Your task to perform on an android device: Open internet settings Image 0: 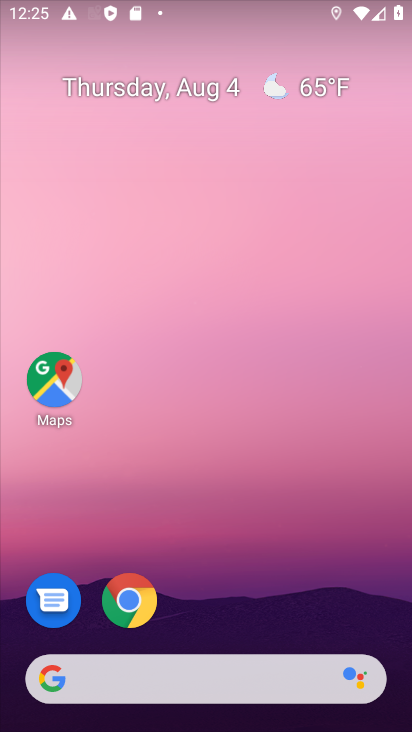
Step 0: drag from (219, 617) to (229, 82)
Your task to perform on an android device: Open internet settings Image 1: 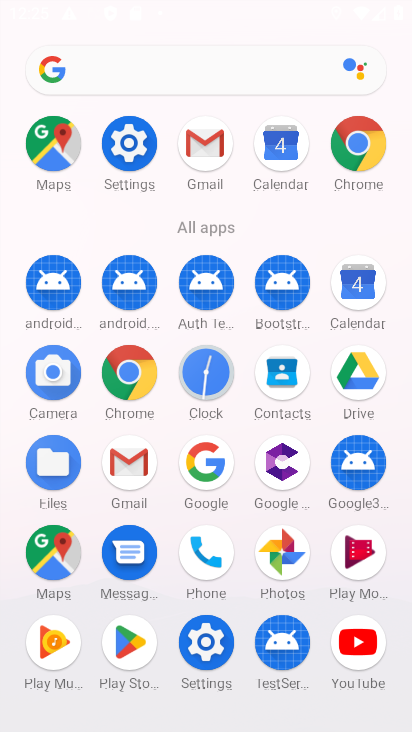
Step 1: click (193, 652)
Your task to perform on an android device: Open internet settings Image 2: 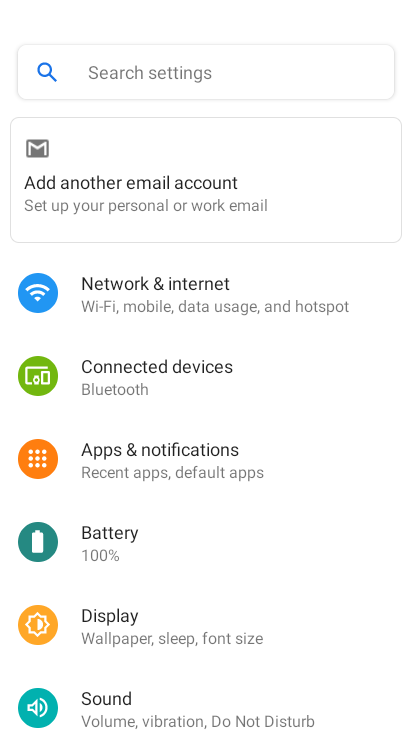
Step 2: click (136, 318)
Your task to perform on an android device: Open internet settings Image 3: 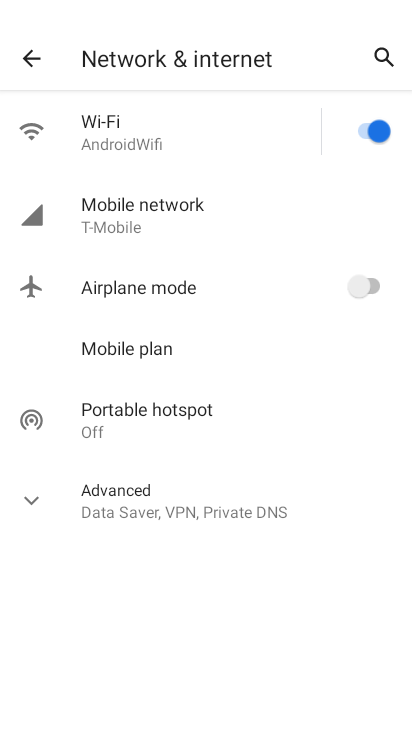
Step 3: press home button
Your task to perform on an android device: Open internet settings Image 4: 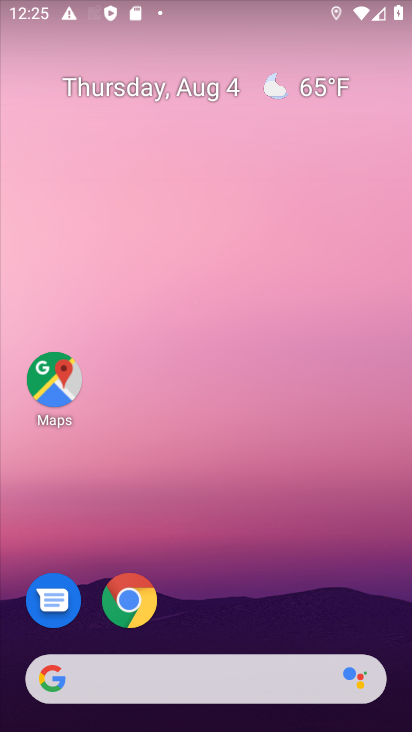
Step 4: drag from (226, 623) to (132, 108)
Your task to perform on an android device: Open internet settings Image 5: 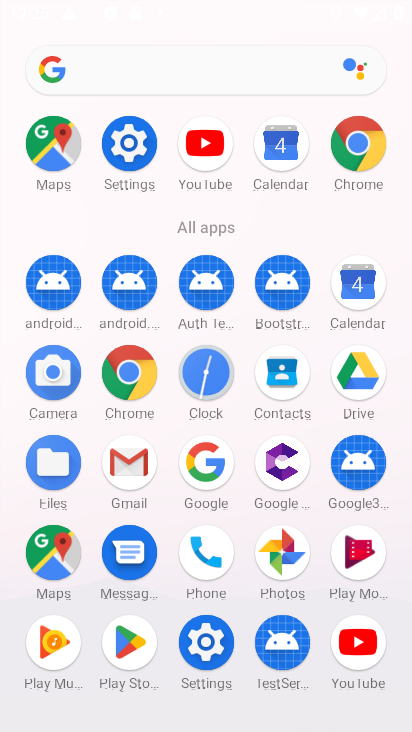
Step 5: click (140, 137)
Your task to perform on an android device: Open internet settings Image 6: 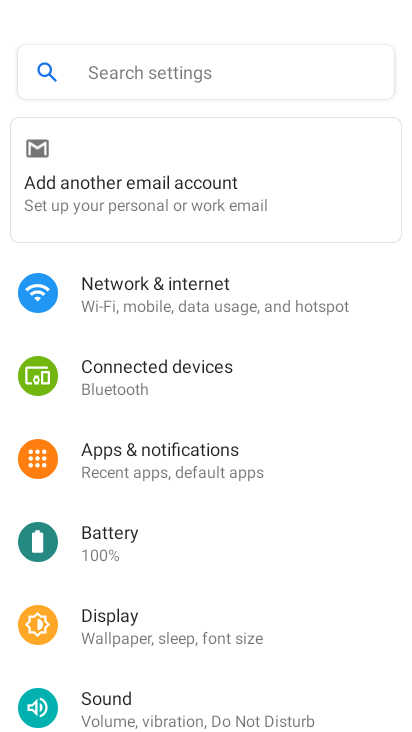
Step 6: click (160, 286)
Your task to perform on an android device: Open internet settings Image 7: 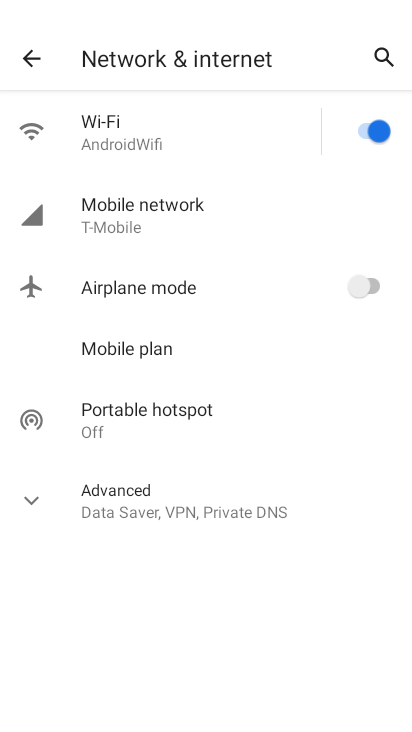
Step 7: click (131, 219)
Your task to perform on an android device: Open internet settings Image 8: 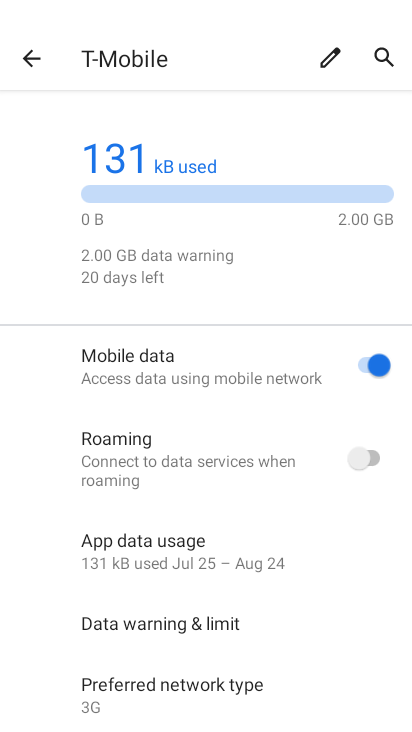
Step 8: task complete